Your task to perform on an android device: check out phone information Image 0: 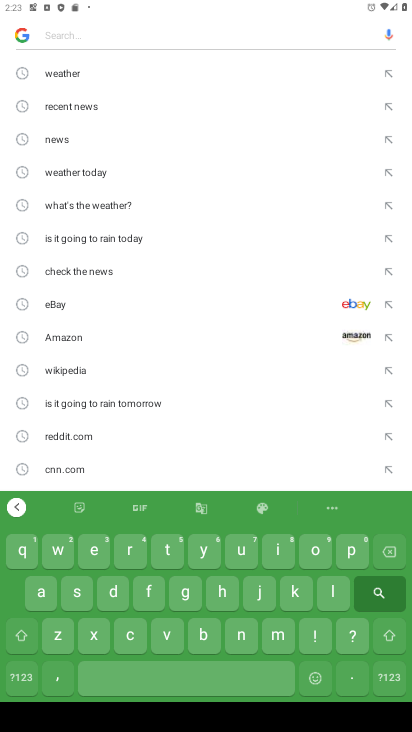
Step 0: press home button
Your task to perform on an android device: check out phone information Image 1: 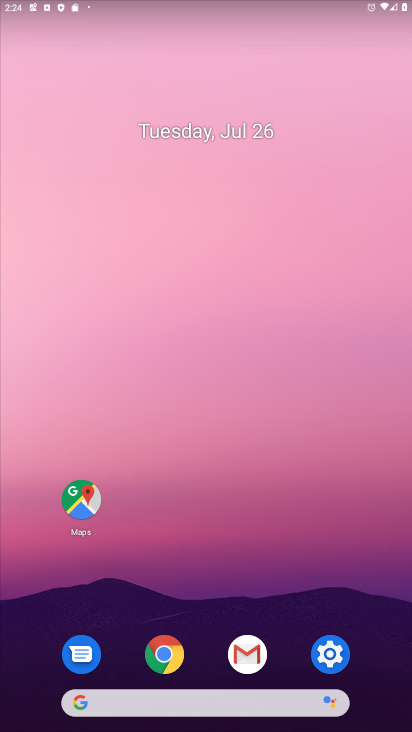
Step 1: click (344, 650)
Your task to perform on an android device: check out phone information Image 2: 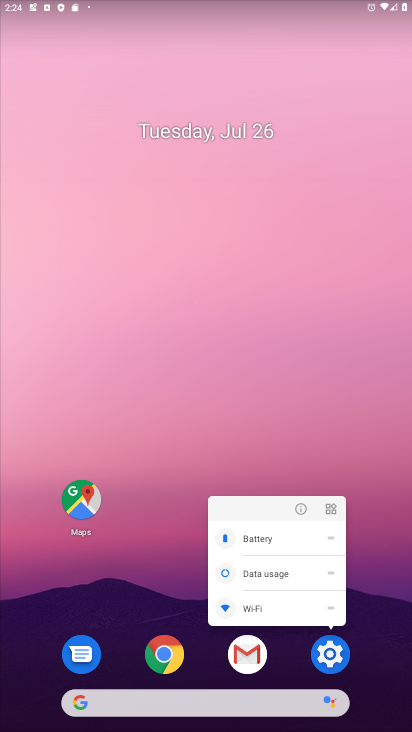
Step 2: click (332, 659)
Your task to perform on an android device: check out phone information Image 3: 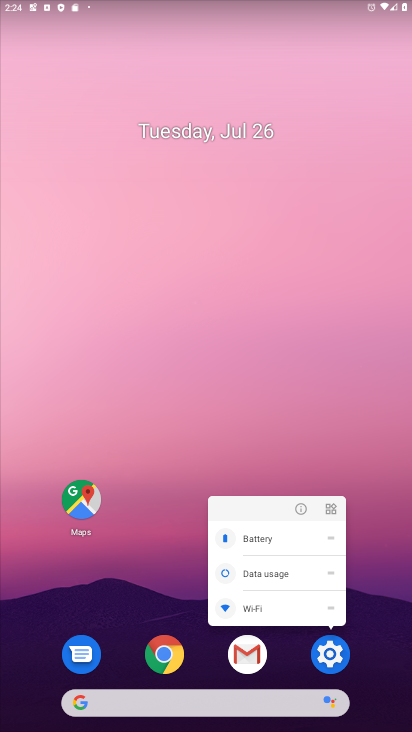
Step 3: click (330, 660)
Your task to perform on an android device: check out phone information Image 4: 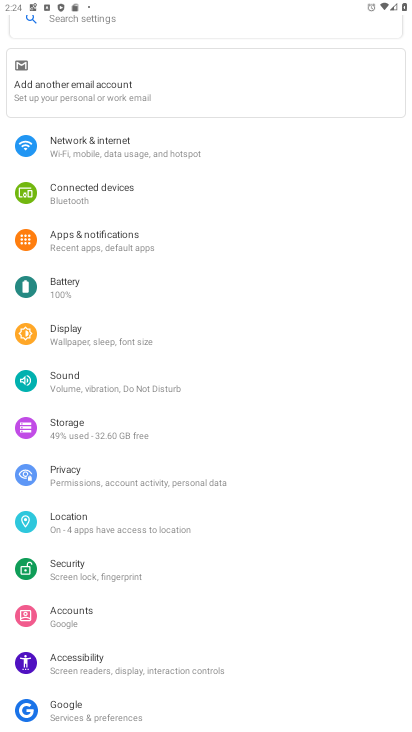
Step 4: click (84, 24)
Your task to perform on an android device: check out phone information Image 5: 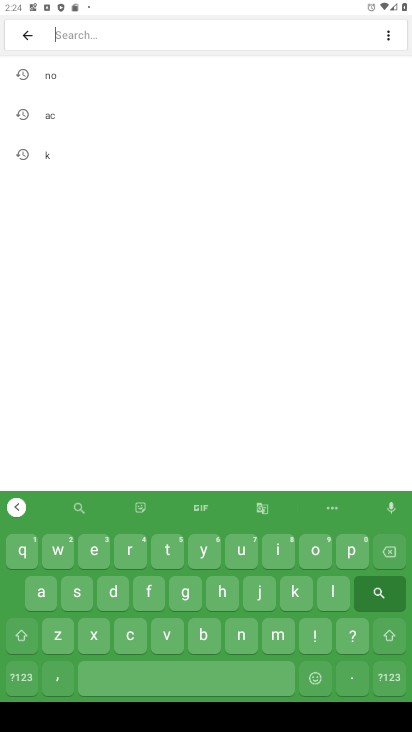
Step 5: click (28, 591)
Your task to perform on an android device: check out phone information Image 6: 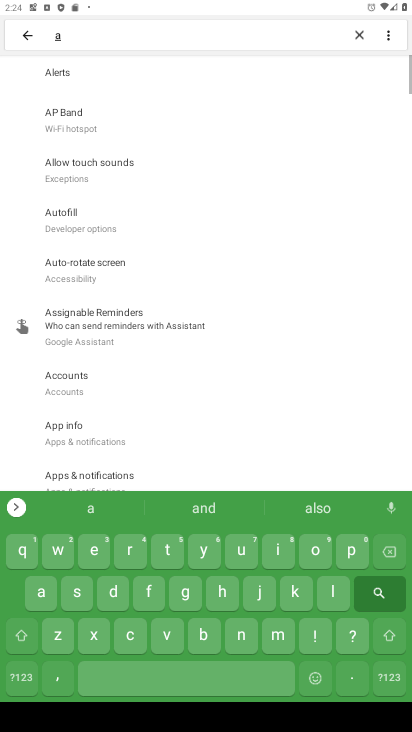
Step 6: click (195, 651)
Your task to perform on an android device: check out phone information Image 7: 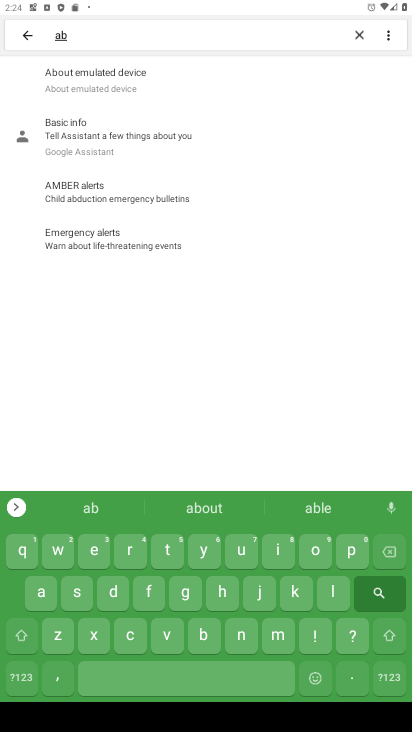
Step 7: click (87, 75)
Your task to perform on an android device: check out phone information Image 8: 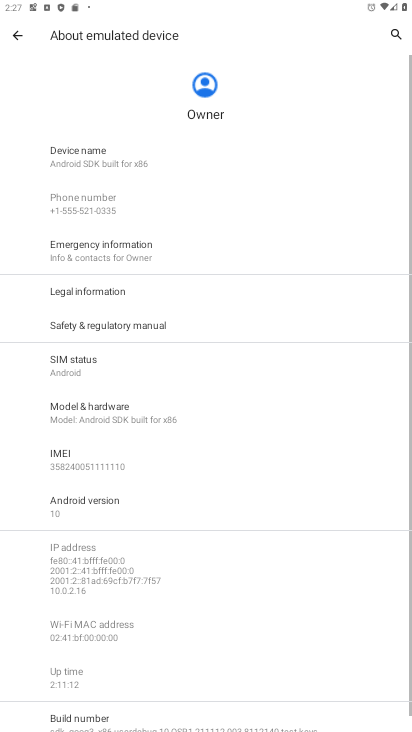
Step 8: task complete